Your task to perform on an android device: turn off translation in the chrome app Image 0: 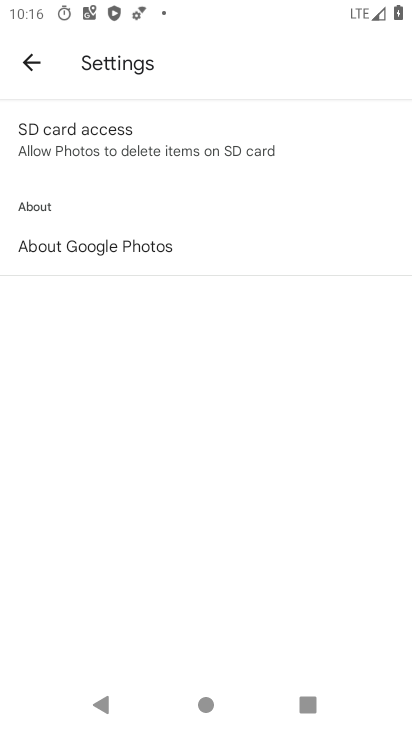
Step 0: press home button
Your task to perform on an android device: turn off translation in the chrome app Image 1: 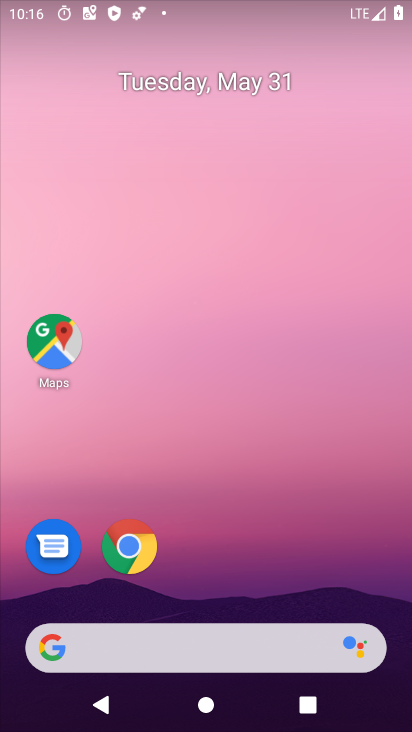
Step 1: click (111, 525)
Your task to perform on an android device: turn off translation in the chrome app Image 2: 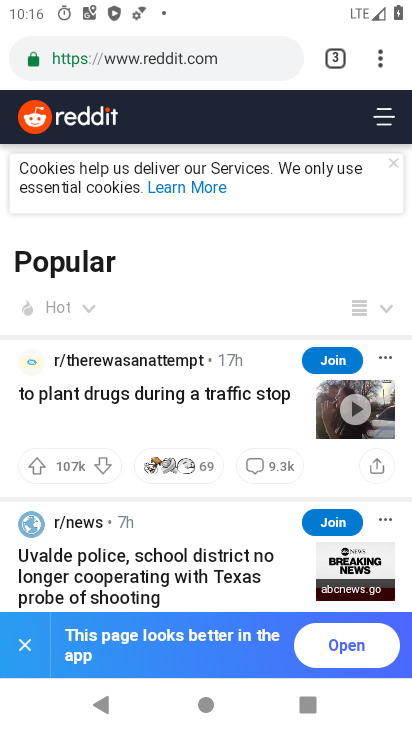
Step 2: click (369, 50)
Your task to perform on an android device: turn off translation in the chrome app Image 3: 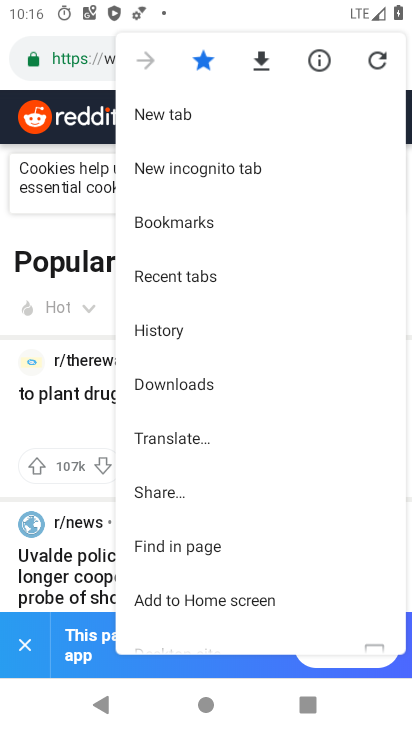
Step 3: click (171, 437)
Your task to perform on an android device: turn off translation in the chrome app Image 4: 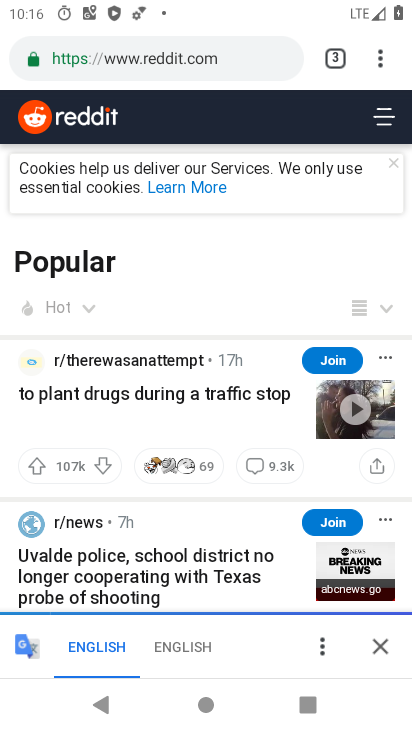
Step 4: click (315, 638)
Your task to perform on an android device: turn off translation in the chrome app Image 5: 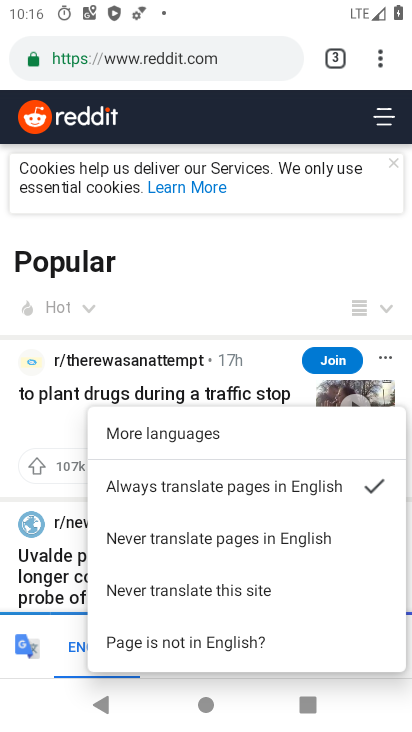
Step 5: click (176, 547)
Your task to perform on an android device: turn off translation in the chrome app Image 6: 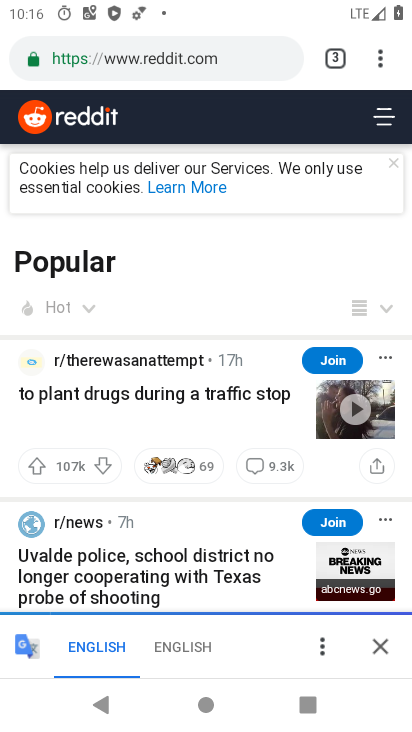
Step 6: task complete